Your task to perform on an android device: set an alarm Image 0: 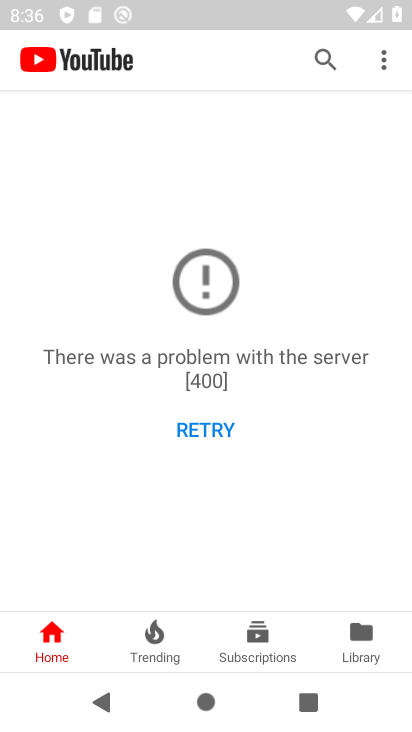
Step 0: press home button
Your task to perform on an android device: set an alarm Image 1: 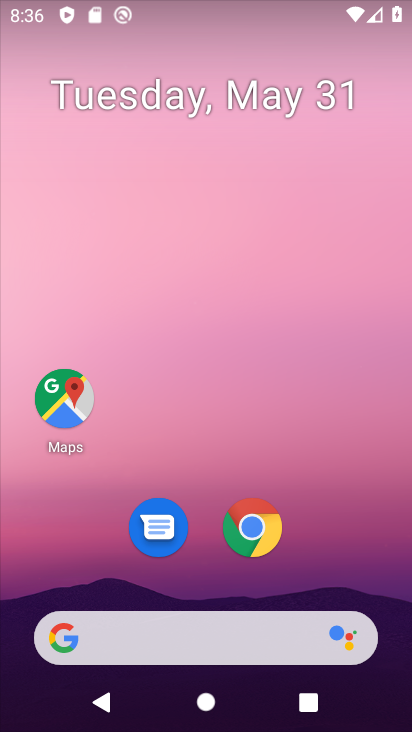
Step 1: drag from (180, 585) to (135, 123)
Your task to perform on an android device: set an alarm Image 2: 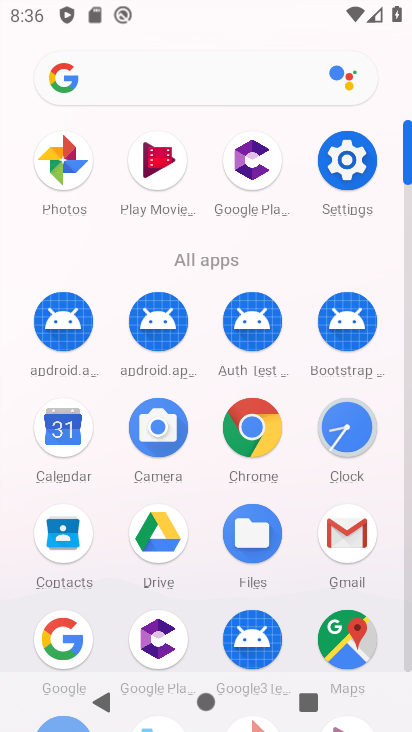
Step 2: click (343, 446)
Your task to perform on an android device: set an alarm Image 3: 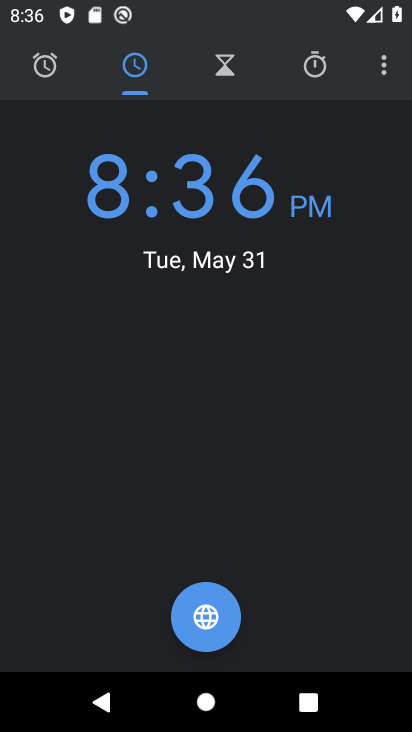
Step 3: click (42, 61)
Your task to perform on an android device: set an alarm Image 4: 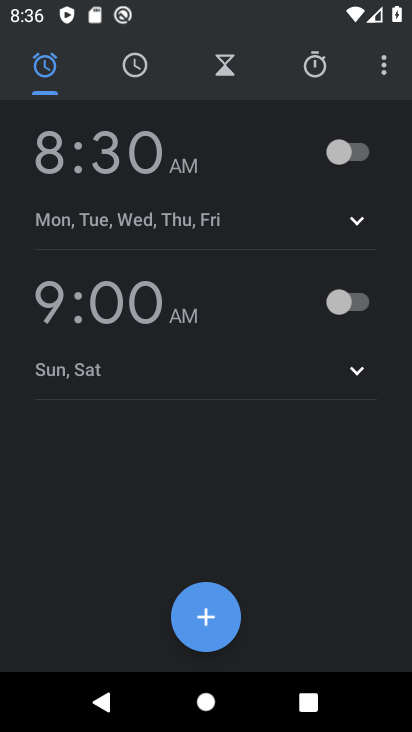
Step 4: click (340, 148)
Your task to perform on an android device: set an alarm Image 5: 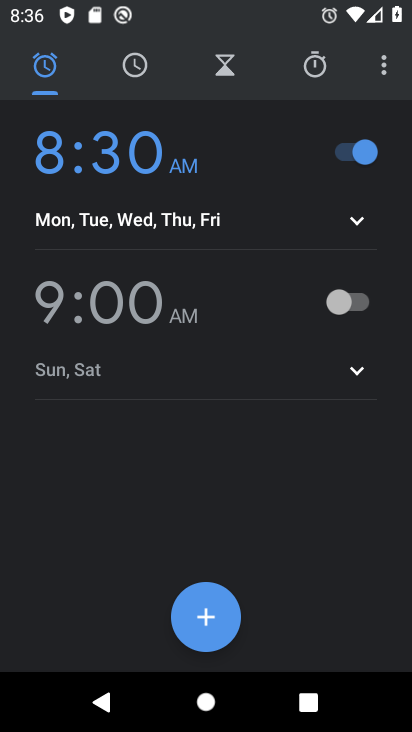
Step 5: task complete